Your task to perform on an android device: Open my contact list Image 0: 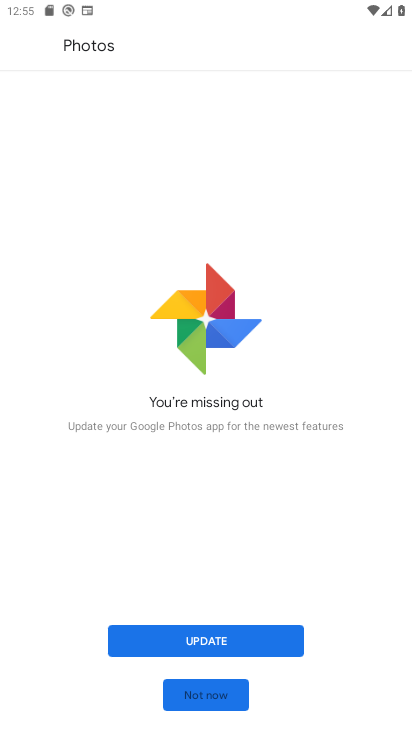
Step 0: press home button
Your task to perform on an android device: Open my contact list Image 1: 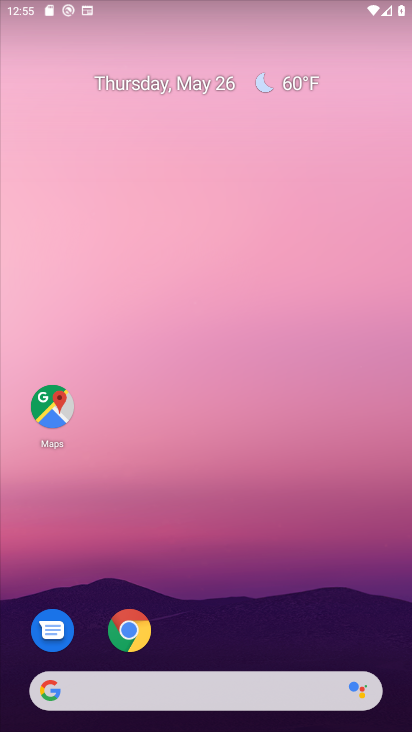
Step 1: drag from (277, 629) to (271, 33)
Your task to perform on an android device: Open my contact list Image 2: 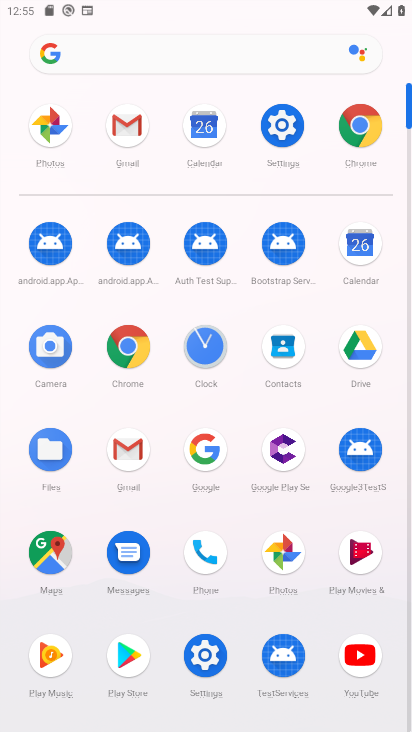
Step 2: click (214, 539)
Your task to perform on an android device: Open my contact list Image 3: 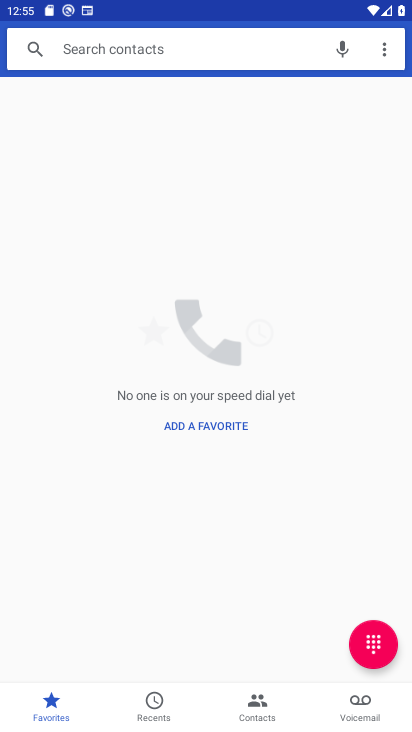
Step 3: click (261, 700)
Your task to perform on an android device: Open my contact list Image 4: 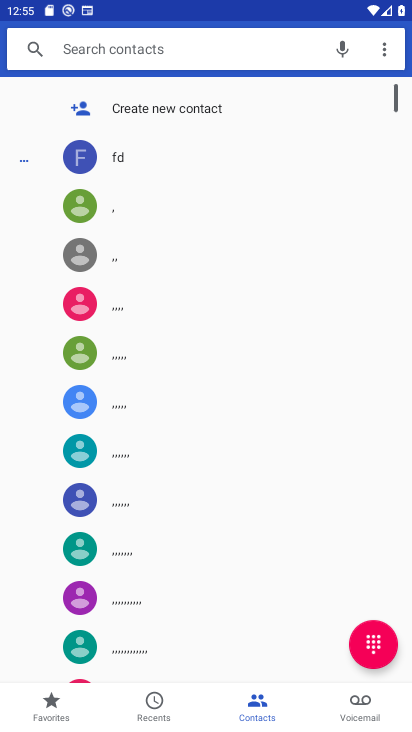
Step 4: task complete